Your task to perform on an android device: manage bookmarks in the chrome app Image 0: 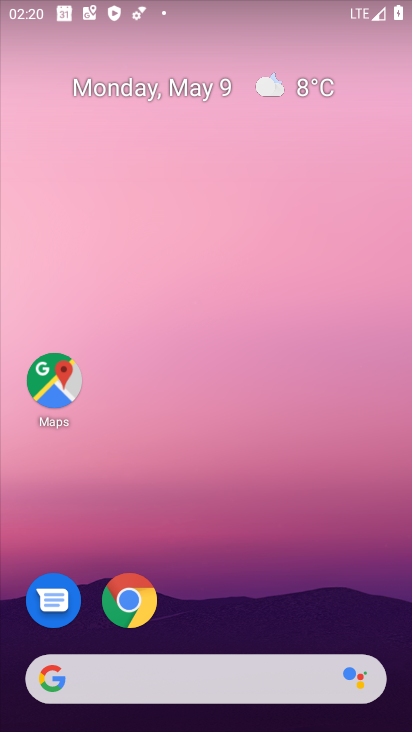
Step 0: press home button
Your task to perform on an android device: manage bookmarks in the chrome app Image 1: 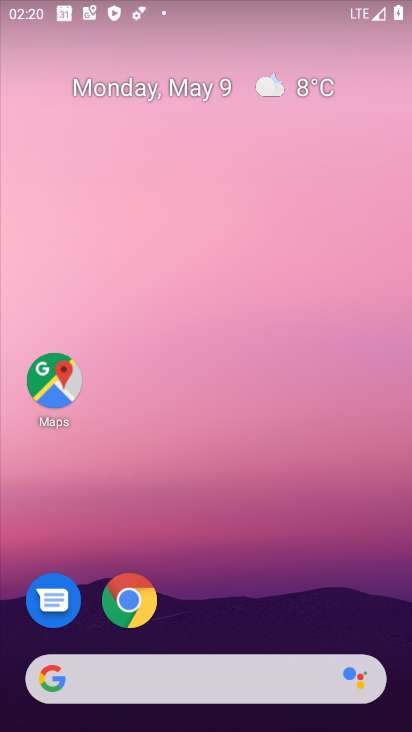
Step 1: click (125, 594)
Your task to perform on an android device: manage bookmarks in the chrome app Image 2: 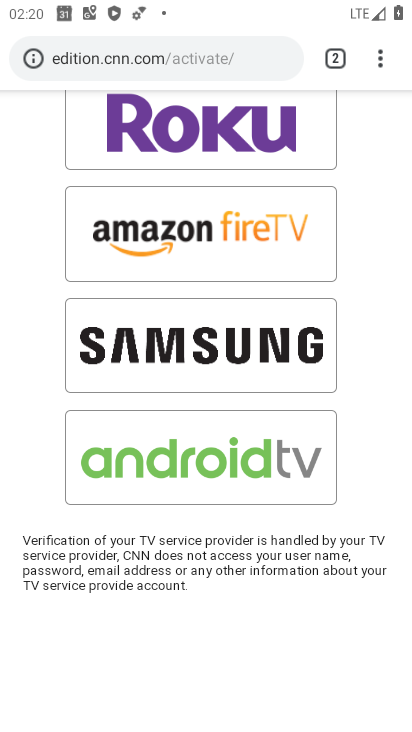
Step 2: click (375, 54)
Your task to perform on an android device: manage bookmarks in the chrome app Image 3: 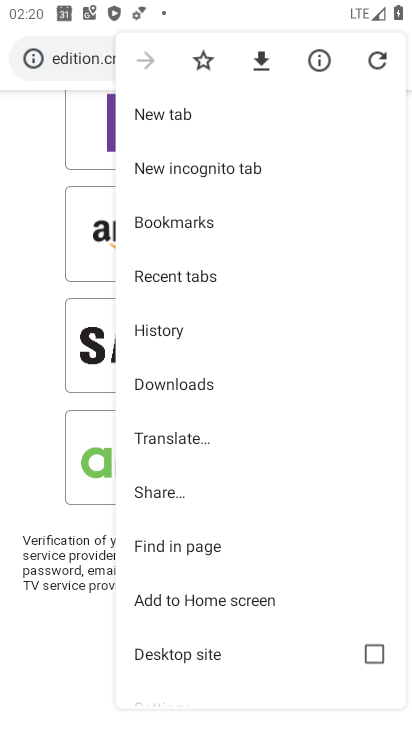
Step 3: click (218, 217)
Your task to perform on an android device: manage bookmarks in the chrome app Image 4: 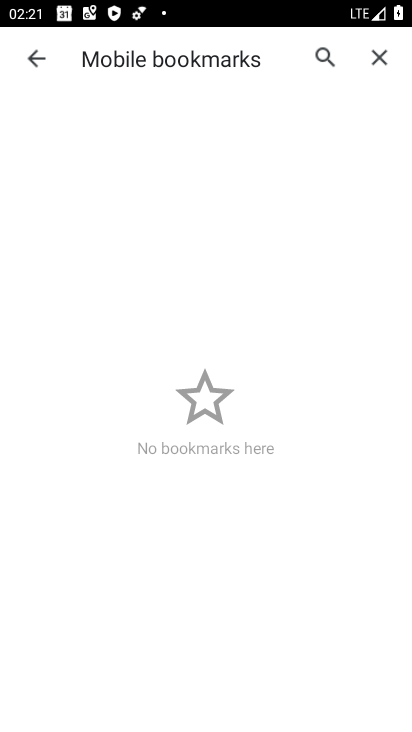
Step 4: task complete